Your task to perform on an android device: Open Google Chrome Image 0: 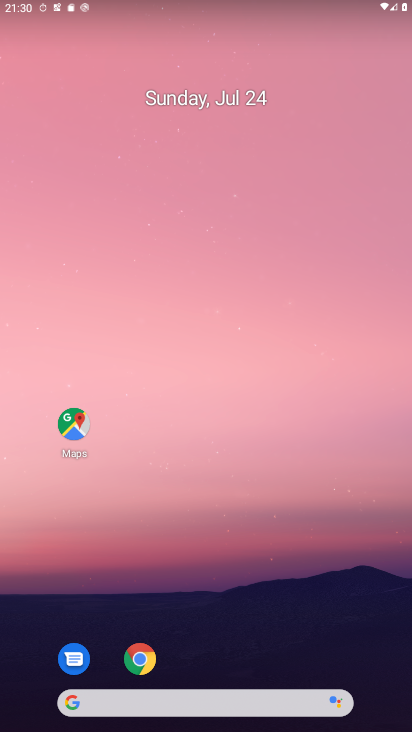
Step 0: click (139, 660)
Your task to perform on an android device: Open Google Chrome Image 1: 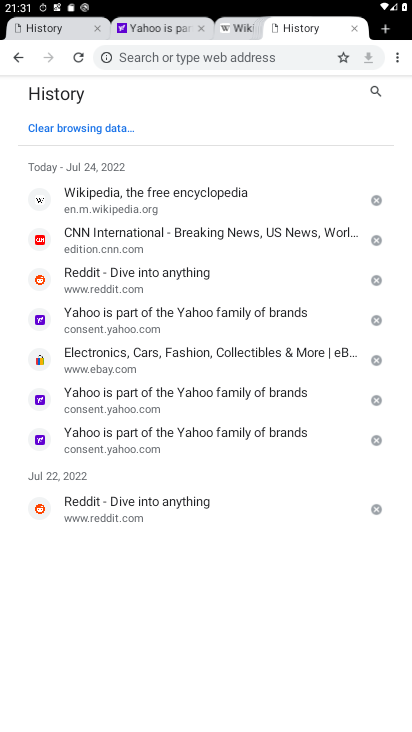
Step 1: task complete